Your task to perform on an android device: Open location settings Image 0: 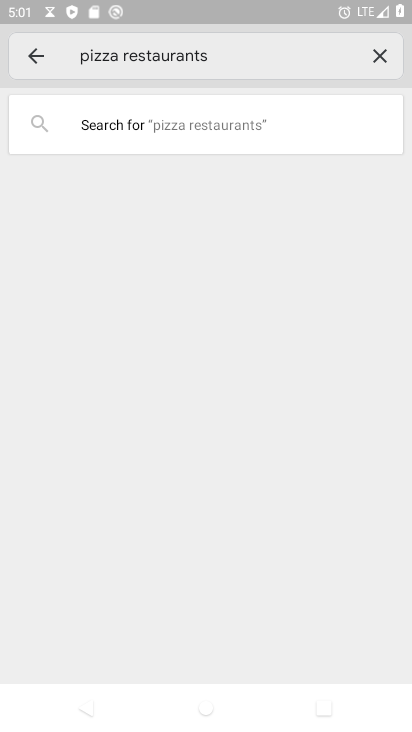
Step 0: press back button
Your task to perform on an android device: Open location settings Image 1: 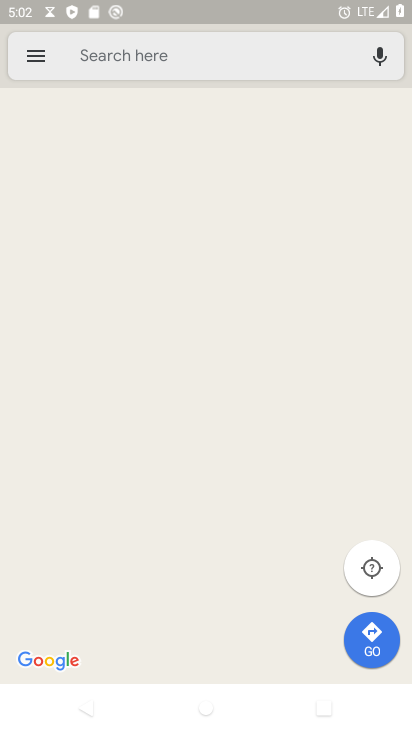
Step 1: press back button
Your task to perform on an android device: Open location settings Image 2: 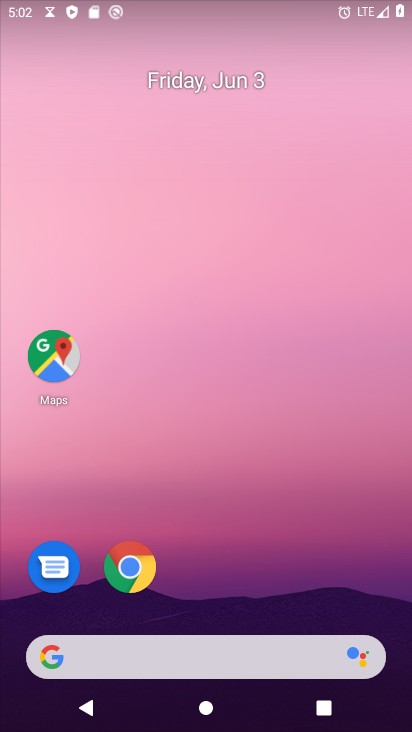
Step 2: drag from (223, 548) to (180, 29)
Your task to perform on an android device: Open location settings Image 3: 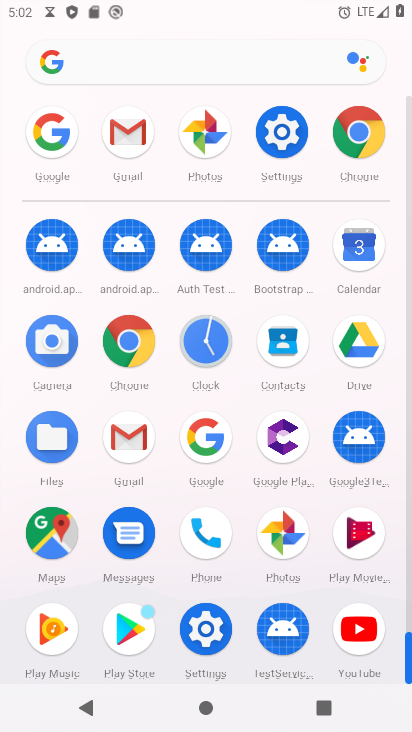
Step 3: click (283, 132)
Your task to perform on an android device: Open location settings Image 4: 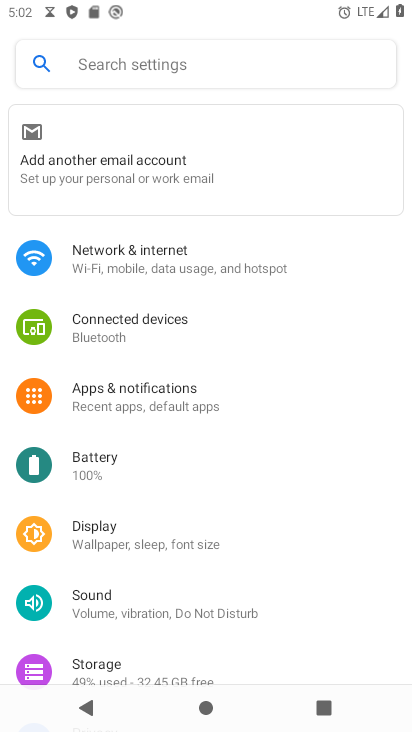
Step 4: drag from (124, 493) to (167, 408)
Your task to perform on an android device: Open location settings Image 5: 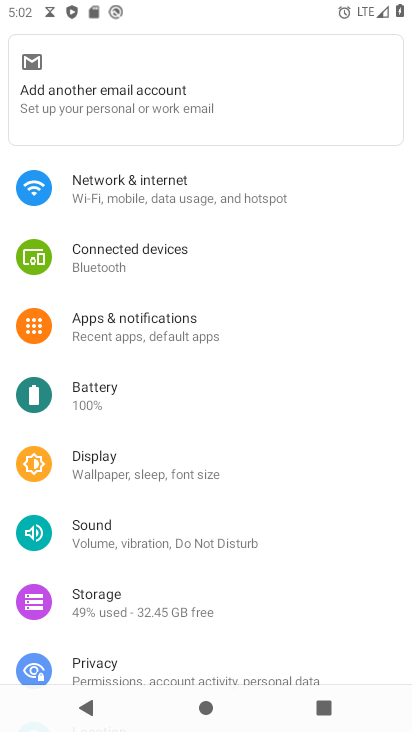
Step 5: drag from (152, 565) to (174, 461)
Your task to perform on an android device: Open location settings Image 6: 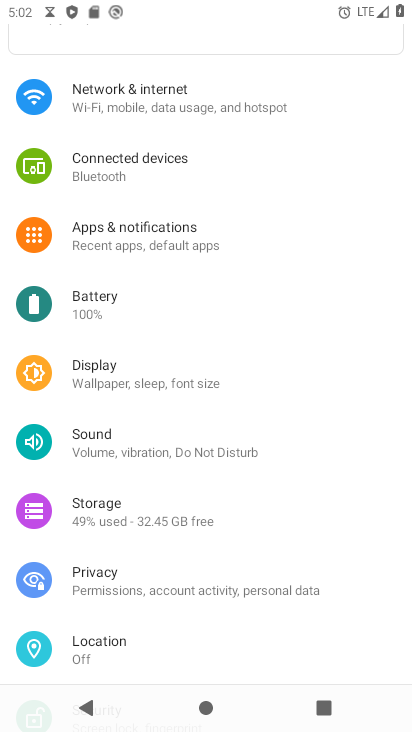
Step 6: click (110, 651)
Your task to perform on an android device: Open location settings Image 7: 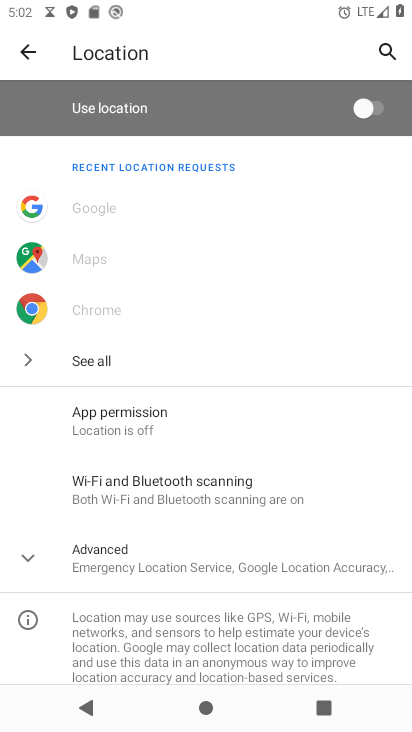
Step 7: task complete